Your task to perform on an android device: turn on javascript in the chrome app Image 0: 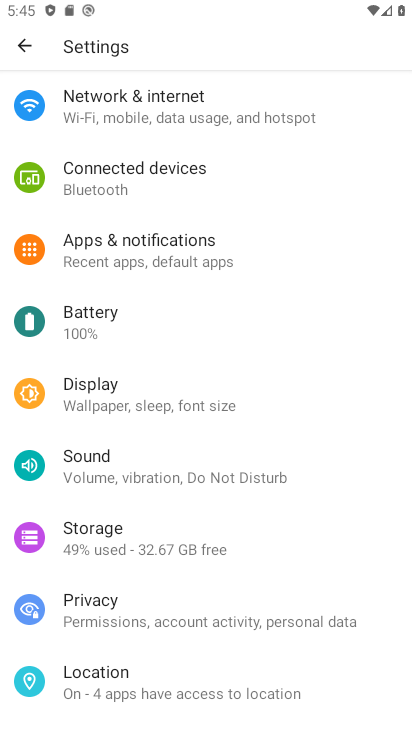
Step 0: press home button
Your task to perform on an android device: turn on javascript in the chrome app Image 1: 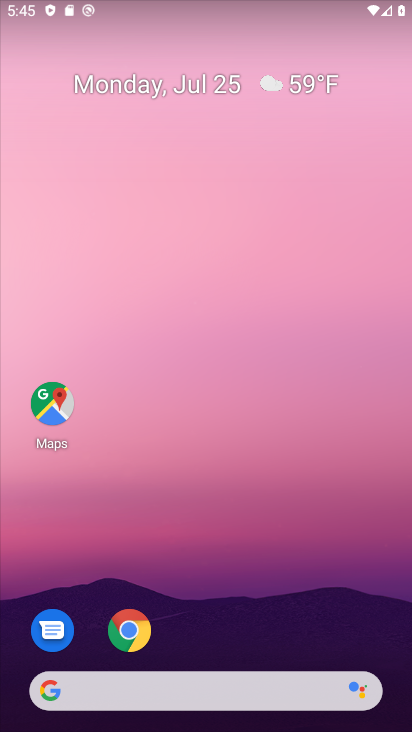
Step 1: click (126, 645)
Your task to perform on an android device: turn on javascript in the chrome app Image 2: 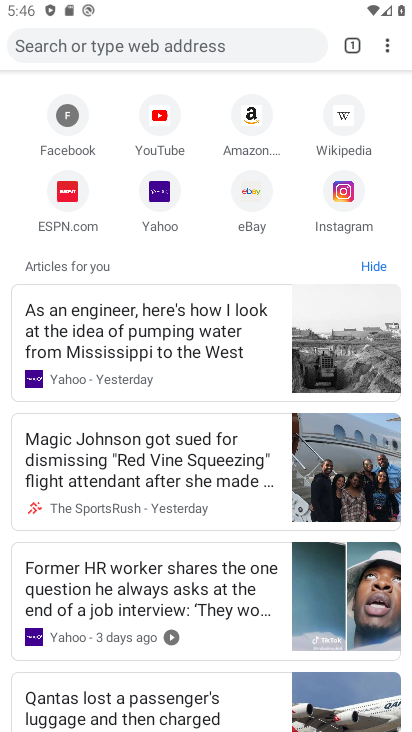
Step 2: click (384, 47)
Your task to perform on an android device: turn on javascript in the chrome app Image 3: 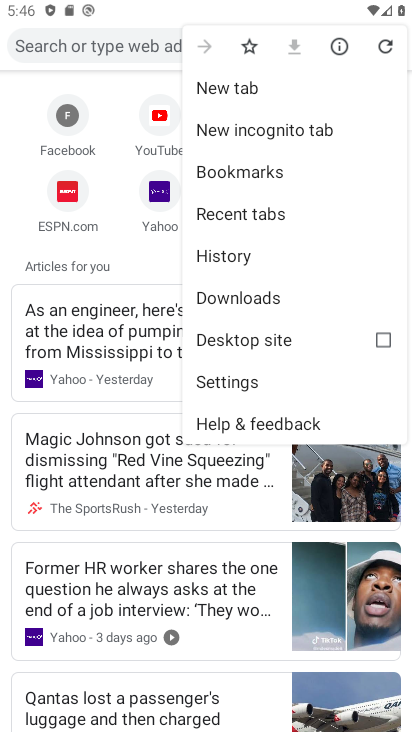
Step 3: click (237, 384)
Your task to perform on an android device: turn on javascript in the chrome app Image 4: 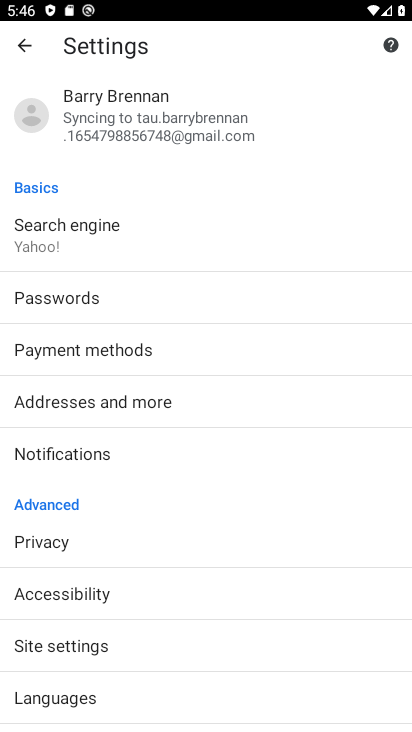
Step 4: click (84, 658)
Your task to perform on an android device: turn on javascript in the chrome app Image 5: 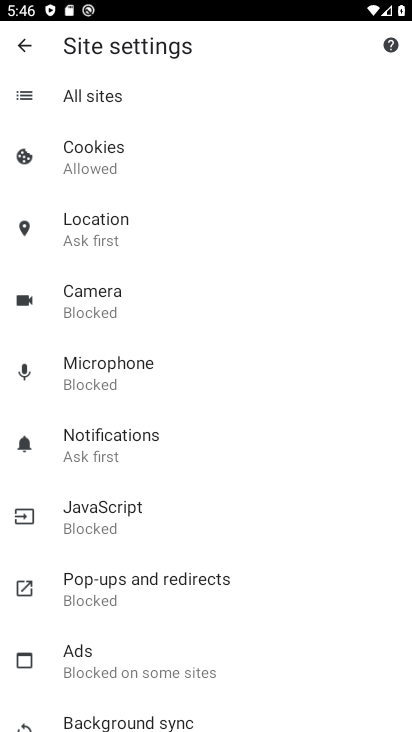
Step 5: click (130, 530)
Your task to perform on an android device: turn on javascript in the chrome app Image 6: 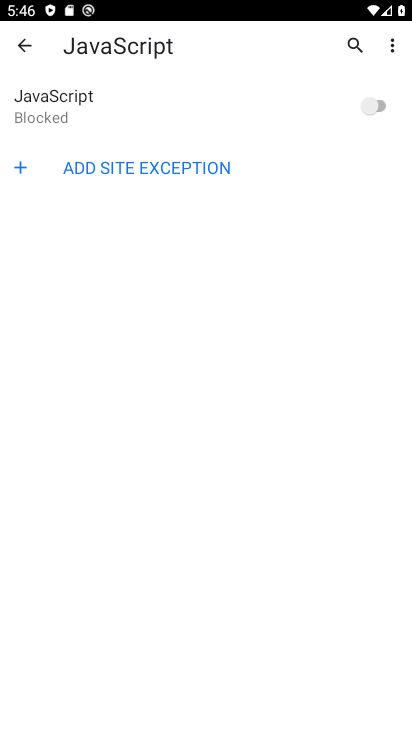
Step 6: click (385, 95)
Your task to perform on an android device: turn on javascript in the chrome app Image 7: 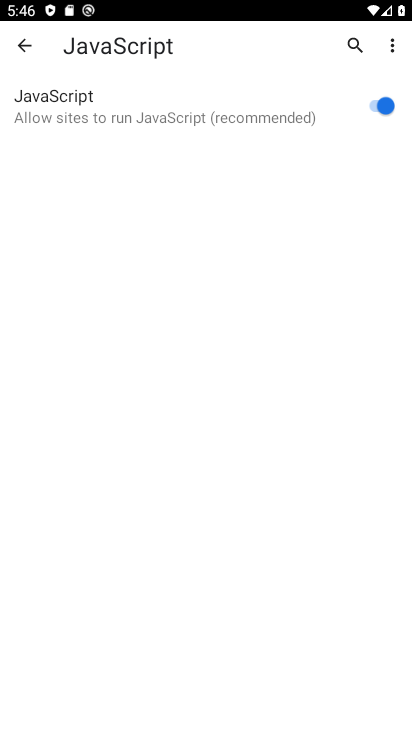
Step 7: task complete